Your task to perform on an android device: Go to Android settings Image 0: 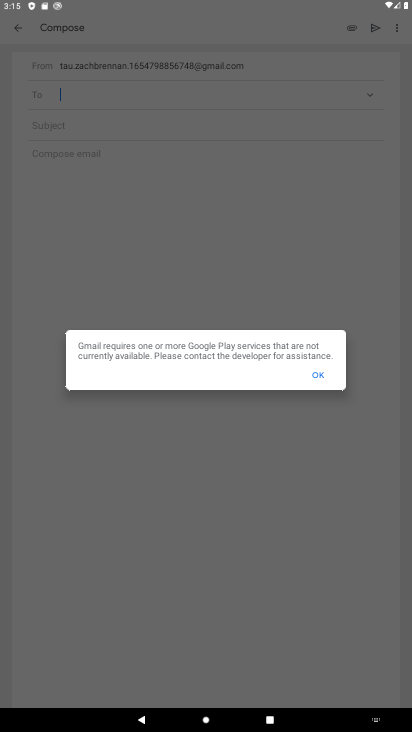
Step 0: click (309, 374)
Your task to perform on an android device: Go to Android settings Image 1: 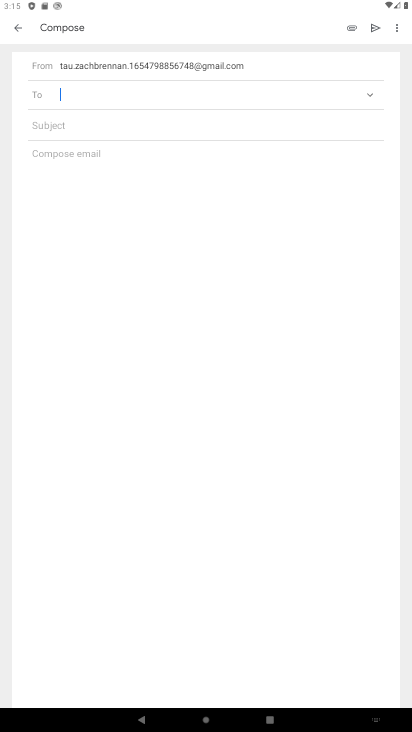
Step 1: press home button
Your task to perform on an android device: Go to Android settings Image 2: 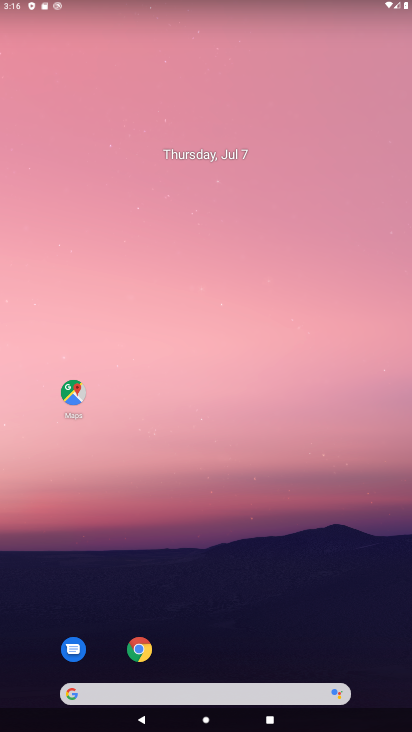
Step 2: drag from (206, 619) to (292, 0)
Your task to perform on an android device: Go to Android settings Image 3: 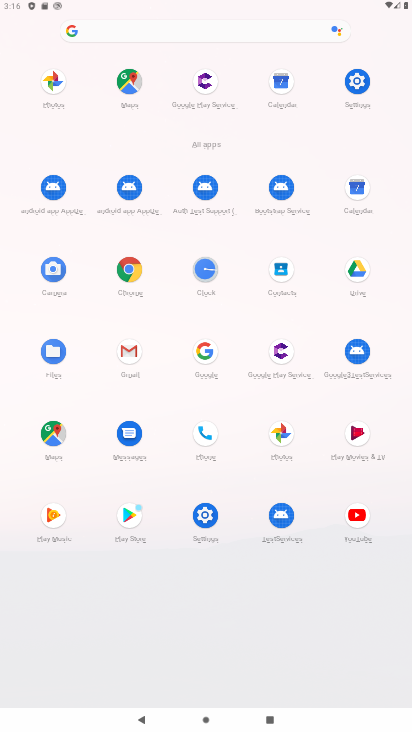
Step 3: click (355, 82)
Your task to perform on an android device: Go to Android settings Image 4: 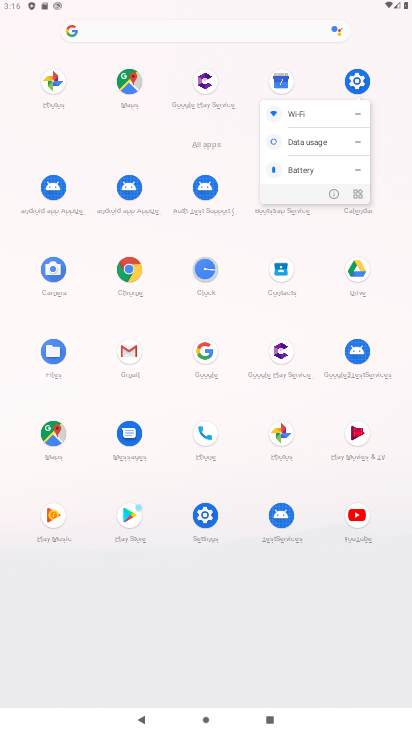
Step 4: click (328, 190)
Your task to perform on an android device: Go to Android settings Image 5: 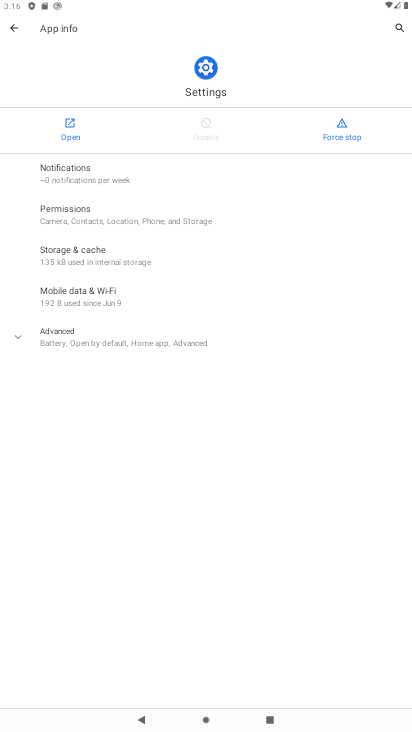
Step 5: click (89, 126)
Your task to perform on an android device: Go to Android settings Image 6: 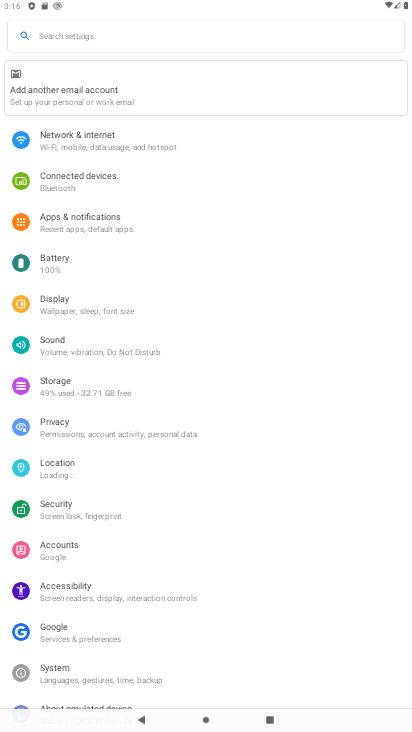
Step 6: drag from (140, 642) to (236, 155)
Your task to perform on an android device: Go to Android settings Image 7: 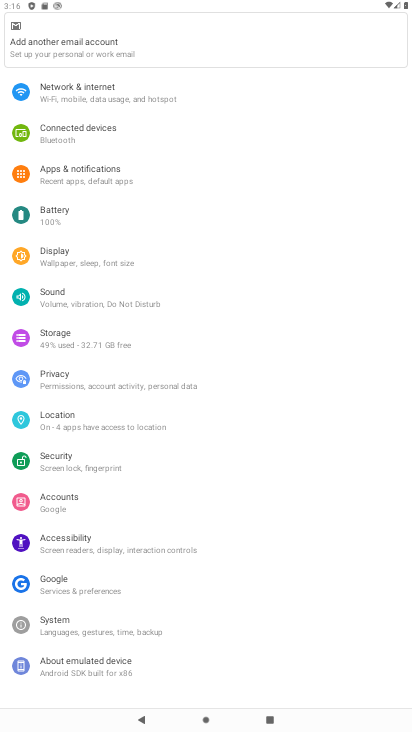
Step 7: click (103, 660)
Your task to perform on an android device: Go to Android settings Image 8: 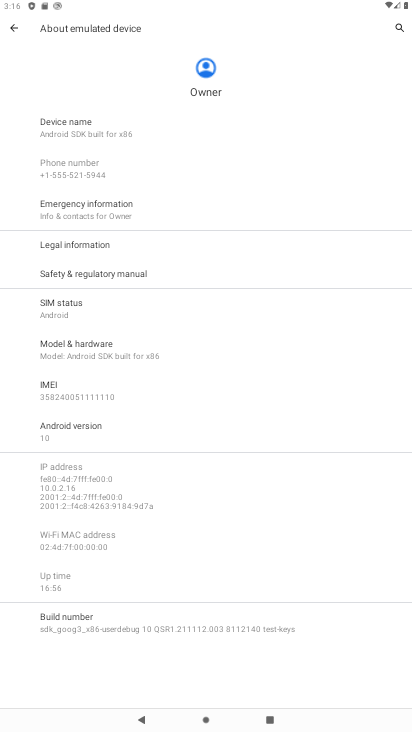
Step 8: drag from (195, 577) to (279, 243)
Your task to perform on an android device: Go to Android settings Image 9: 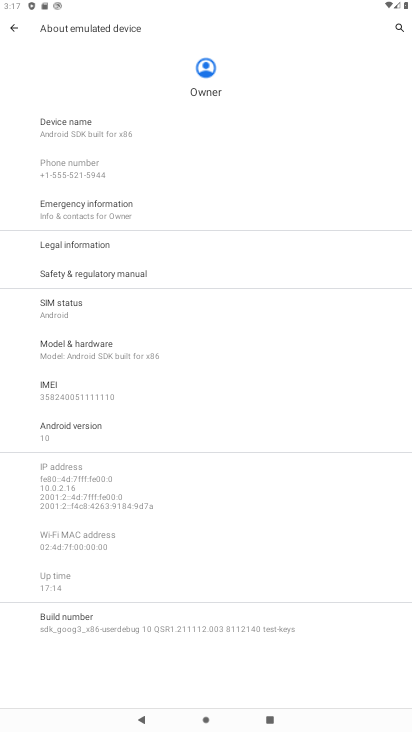
Step 9: drag from (263, 580) to (284, 236)
Your task to perform on an android device: Go to Android settings Image 10: 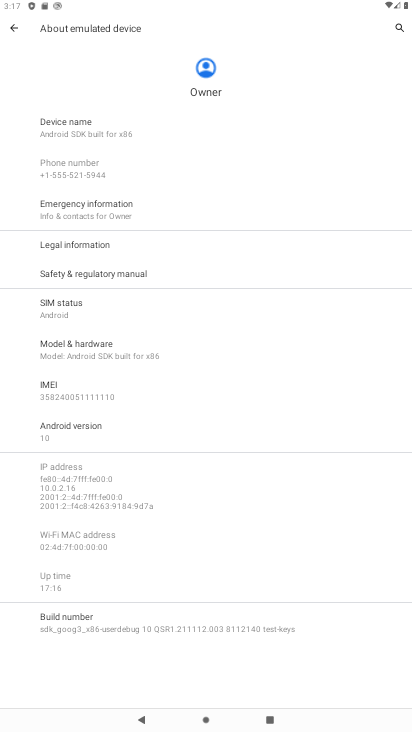
Step 10: click (79, 424)
Your task to perform on an android device: Go to Android settings Image 11: 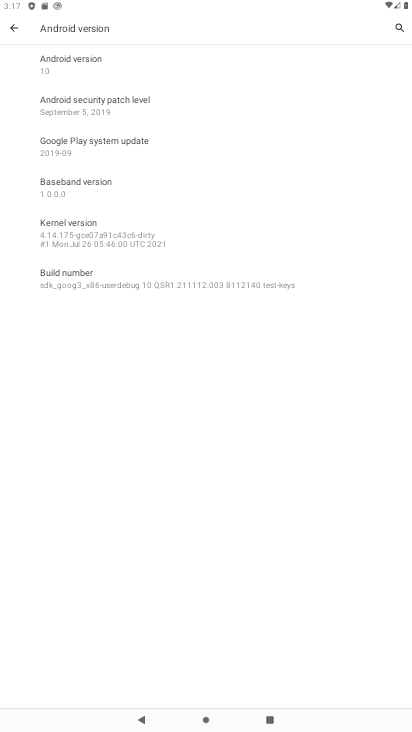
Step 11: task complete